Your task to perform on an android device: check out phone information Image 0: 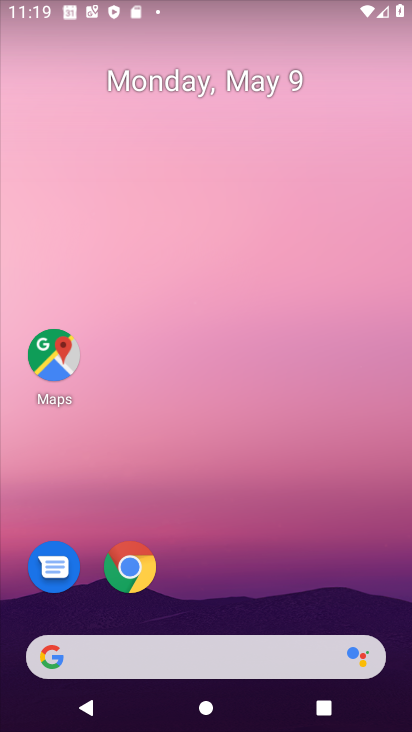
Step 0: drag from (213, 638) to (211, 75)
Your task to perform on an android device: check out phone information Image 1: 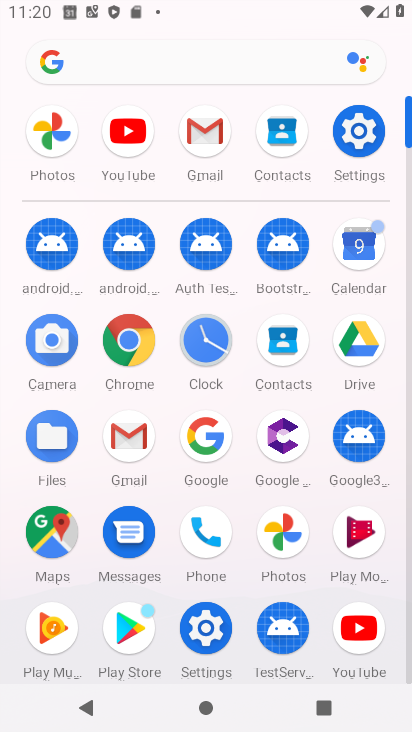
Step 1: click (196, 624)
Your task to perform on an android device: check out phone information Image 2: 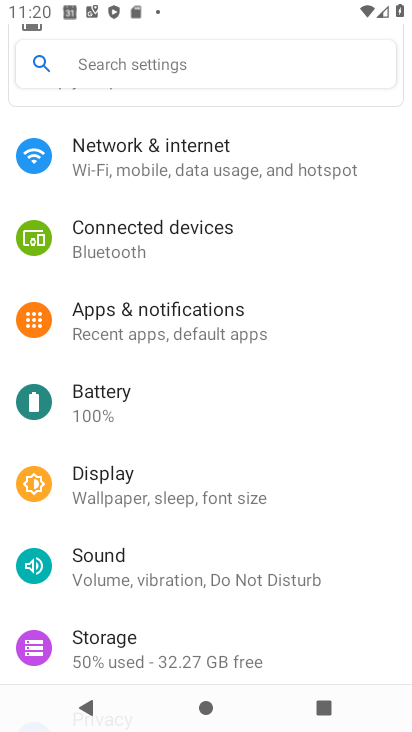
Step 2: drag from (196, 624) to (11, 423)
Your task to perform on an android device: check out phone information Image 3: 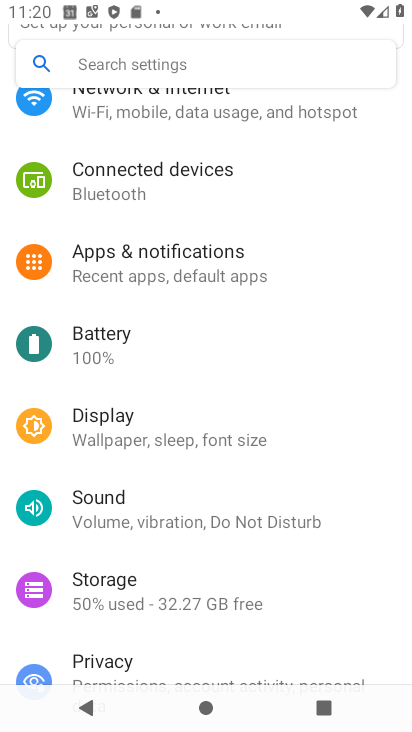
Step 3: drag from (177, 624) to (17, 399)
Your task to perform on an android device: check out phone information Image 4: 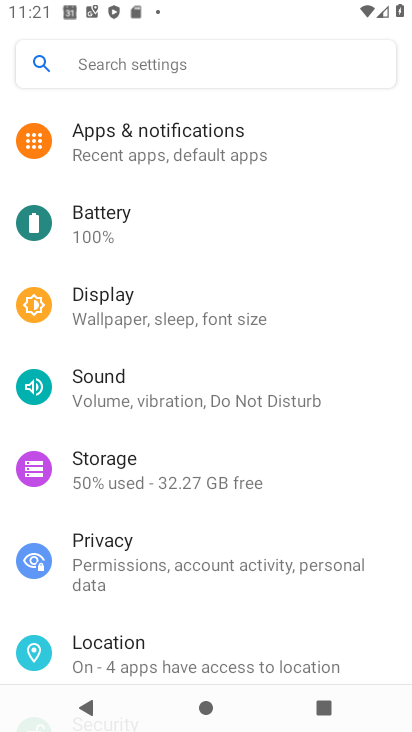
Step 4: drag from (154, 595) to (141, 56)
Your task to perform on an android device: check out phone information Image 5: 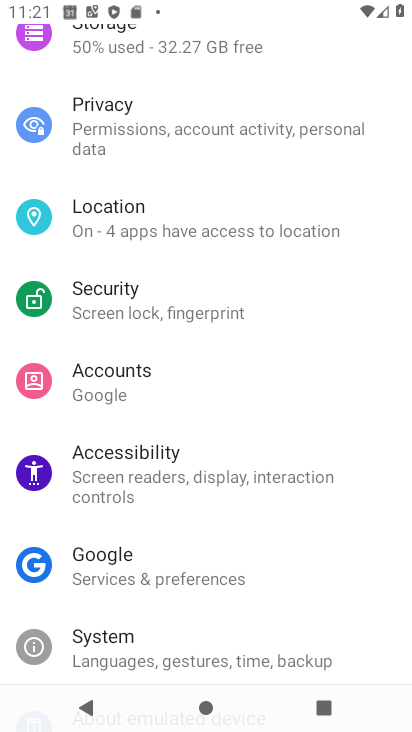
Step 5: drag from (128, 662) to (116, 192)
Your task to perform on an android device: check out phone information Image 6: 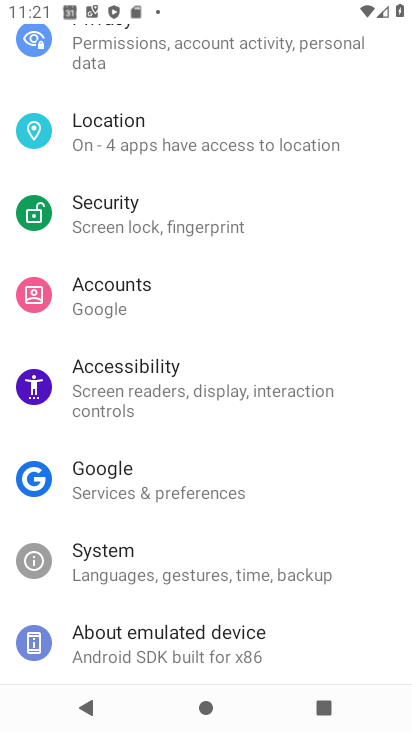
Step 6: click (162, 635)
Your task to perform on an android device: check out phone information Image 7: 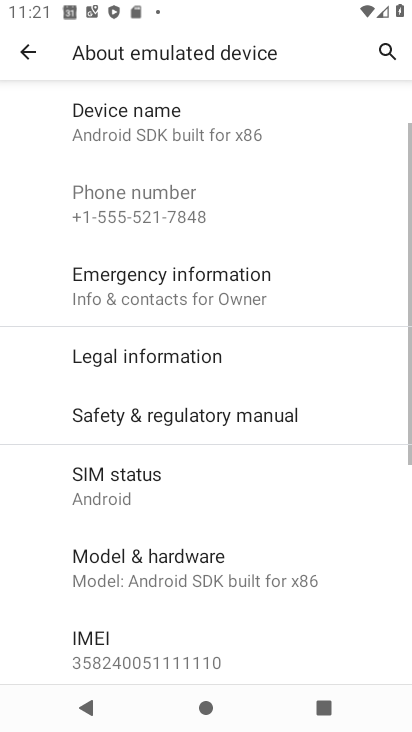
Step 7: task complete